Your task to perform on an android device: Open Google Chrome and open the bookmarks view Image 0: 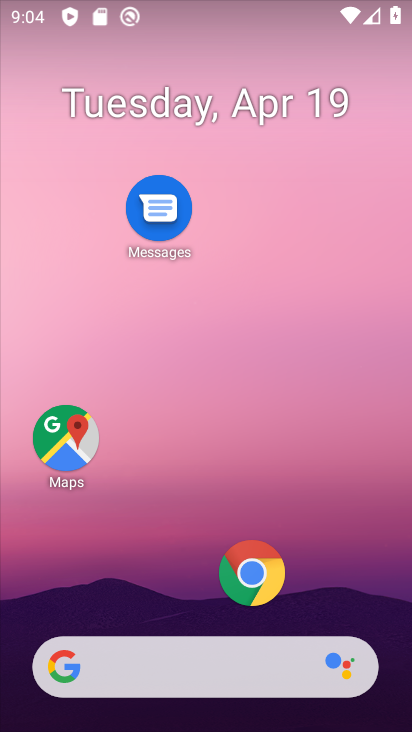
Step 0: click (244, 557)
Your task to perform on an android device: Open Google Chrome and open the bookmarks view Image 1: 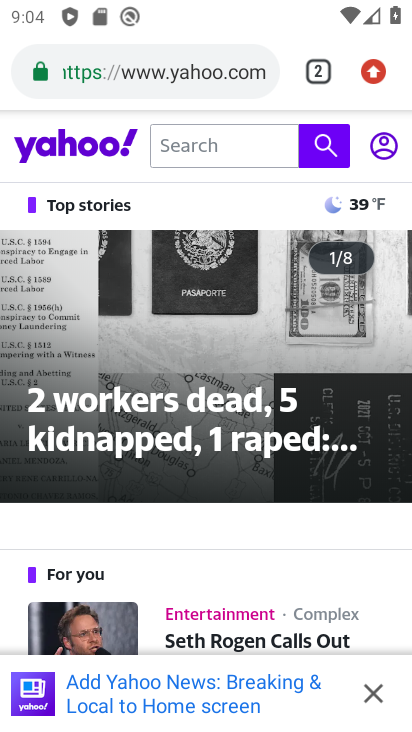
Step 1: click (375, 70)
Your task to perform on an android device: Open Google Chrome and open the bookmarks view Image 2: 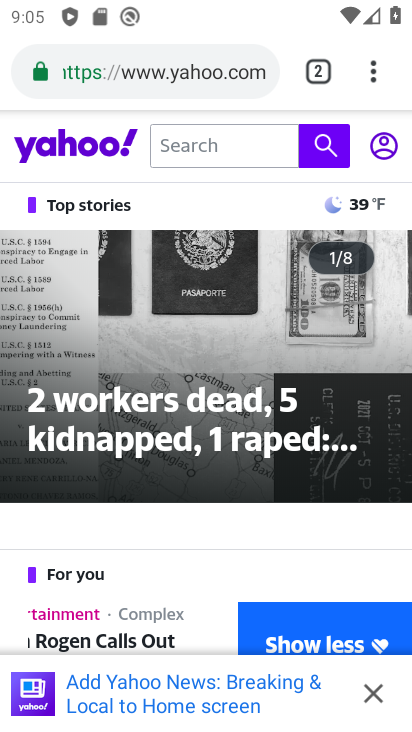
Step 2: click (368, 67)
Your task to perform on an android device: Open Google Chrome and open the bookmarks view Image 3: 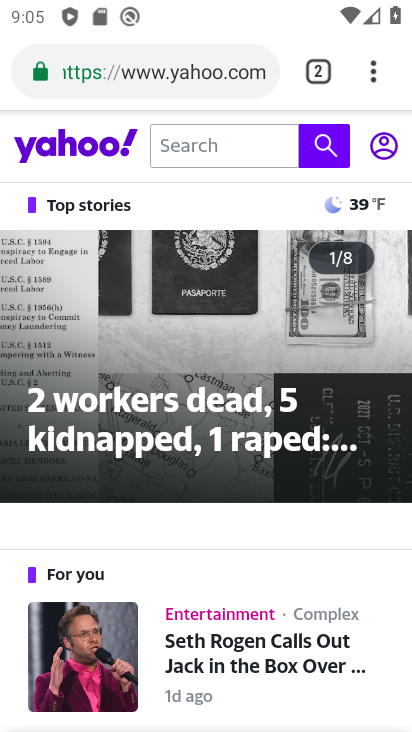
Step 3: click (368, 67)
Your task to perform on an android device: Open Google Chrome and open the bookmarks view Image 4: 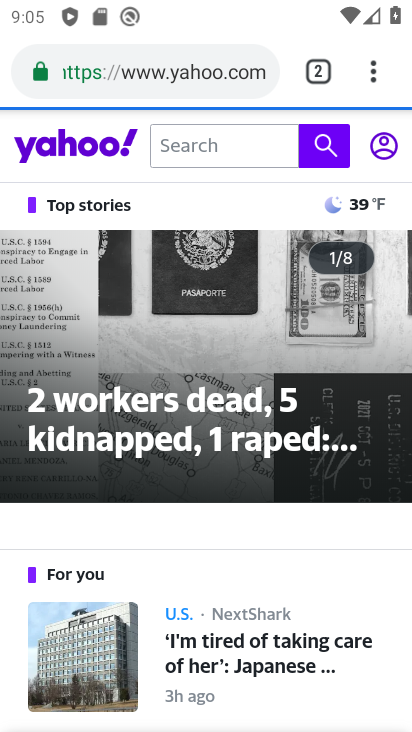
Step 4: click (371, 71)
Your task to perform on an android device: Open Google Chrome and open the bookmarks view Image 5: 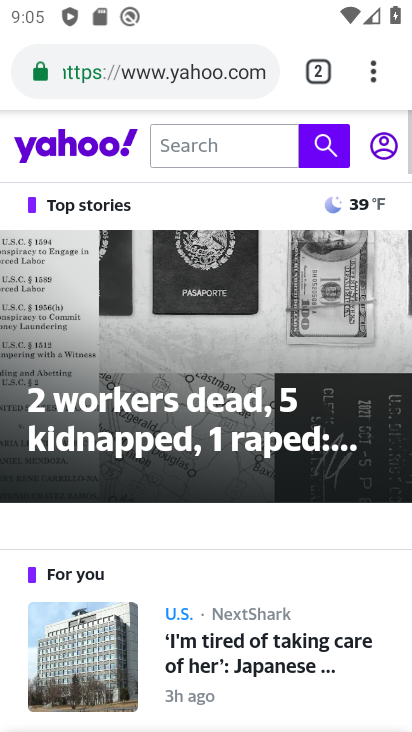
Step 5: click (371, 71)
Your task to perform on an android device: Open Google Chrome and open the bookmarks view Image 6: 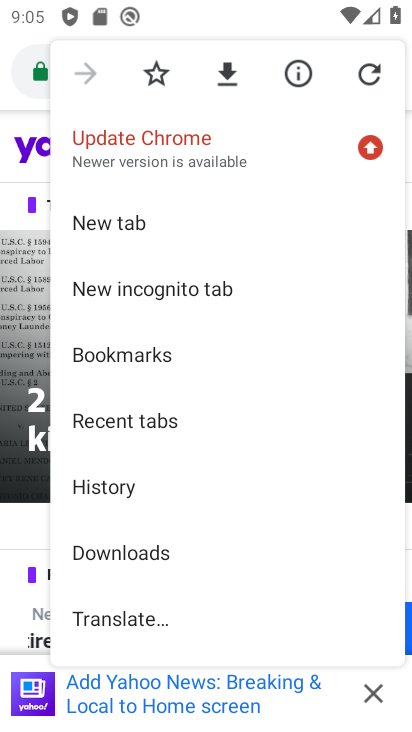
Step 6: click (139, 356)
Your task to perform on an android device: Open Google Chrome and open the bookmarks view Image 7: 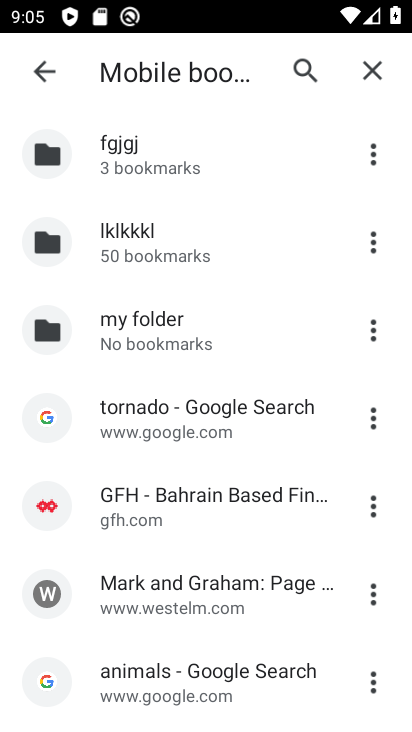
Step 7: click (152, 413)
Your task to perform on an android device: Open Google Chrome and open the bookmarks view Image 8: 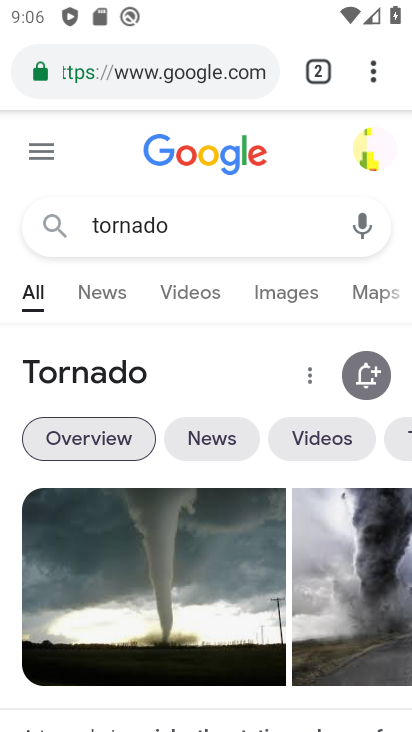
Step 8: task complete